Your task to perform on an android device: stop showing notifications on the lock screen Image 0: 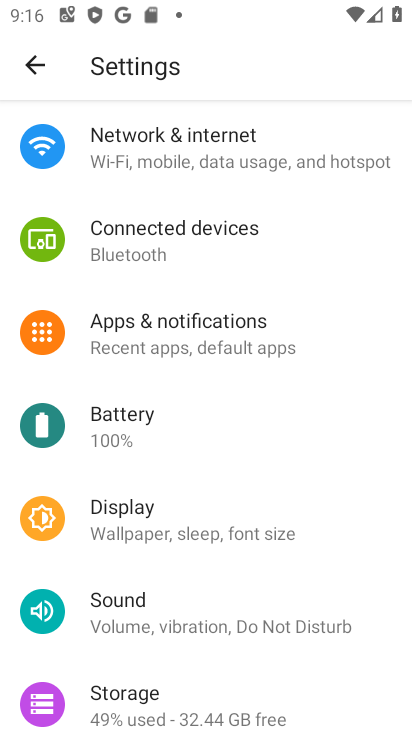
Step 0: press home button
Your task to perform on an android device: stop showing notifications on the lock screen Image 1: 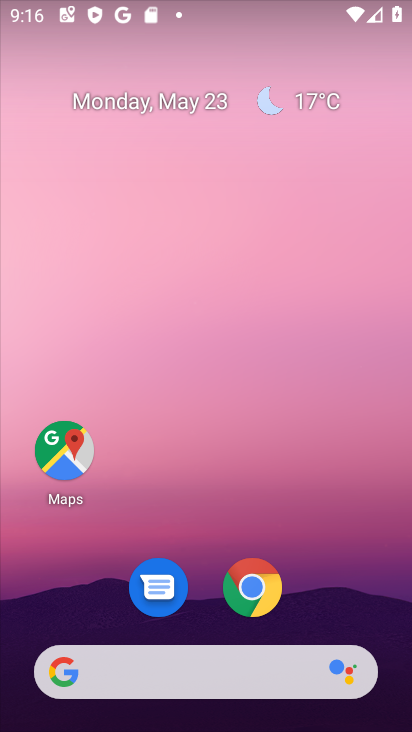
Step 1: drag from (175, 526) to (259, 14)
Your task to perform on an android device: stop showing notifications on the lock screen Image 2: 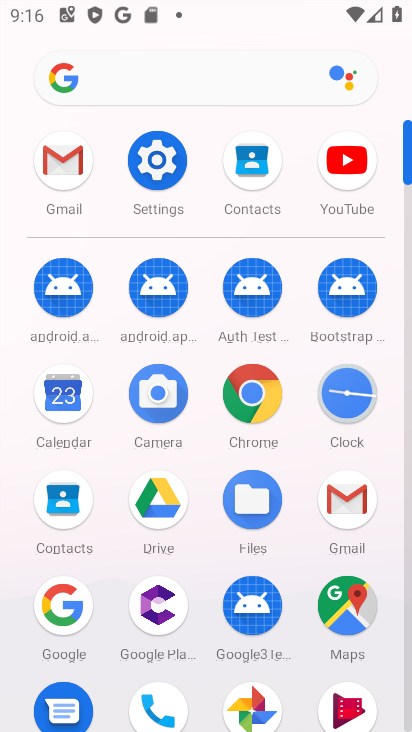
Step 2: click (166, 160)
Your task to perform on an android device: stop showing notifications on the lock screen Image 3: 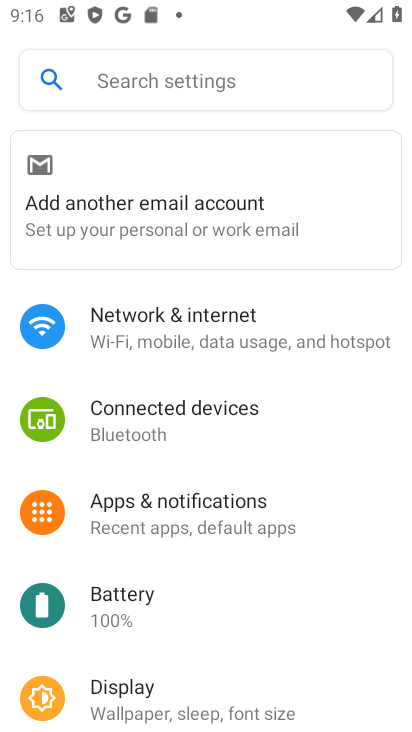
Step 3: click (226, 513)
Your task to perform on an android device: stop showing notifications on the lock screen Image 4: 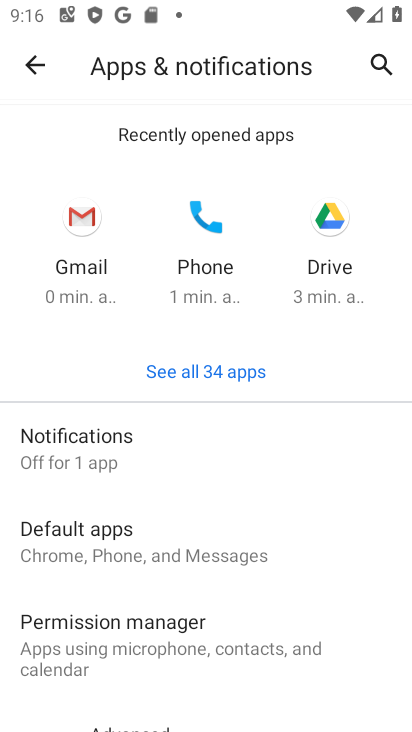
Step 4: drag from (142, 676) to (272, 200)
Your task to perform on an android device: stop showing notifications on the lock screen Image 5: 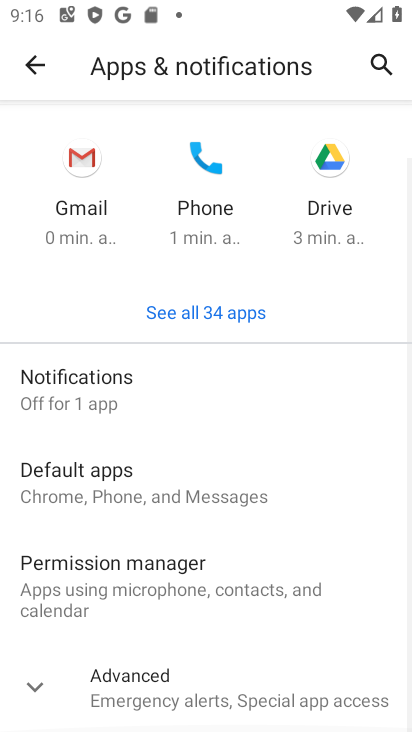
Step 5: click (141, 689)
Your task to perform on an android device: stop showing notifications on the lock screen Image 6: 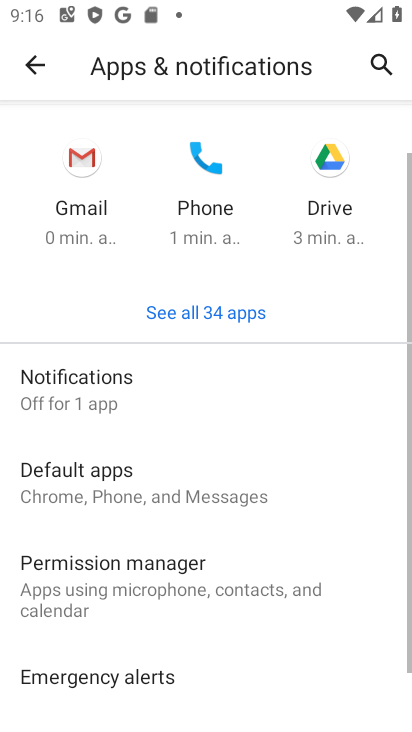
Step 6: drag from (182, 587) to (259, 133)
Your task to perform on an android device: stop showing notifications on the lock screen Image 7: 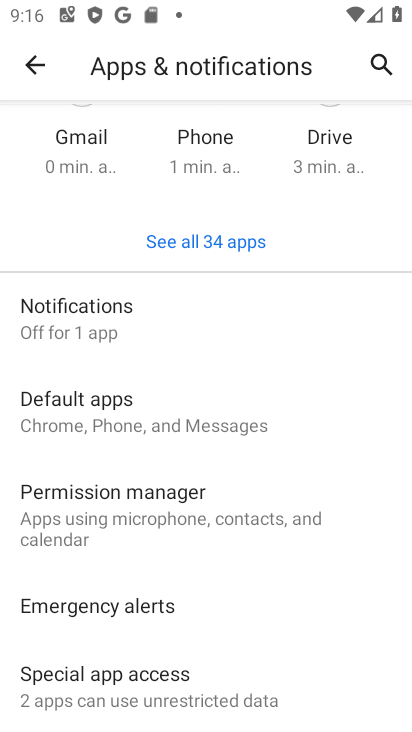
Step 7: click (98, 302)
Your task to perform on an android device: stop showing notifications on the lock screen Image 8: 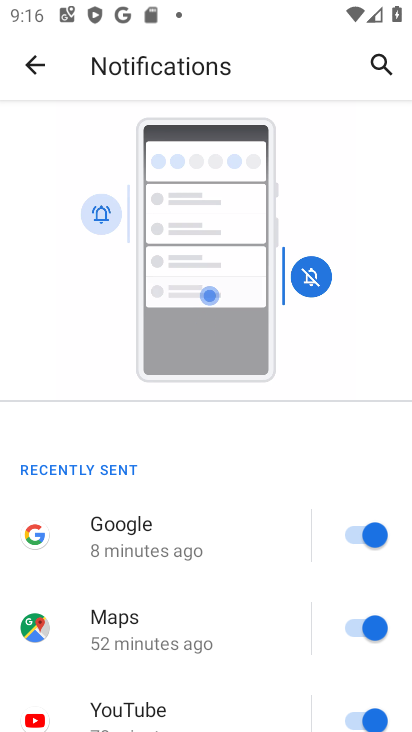
Step 8: drag from (166, 668) to (258, 137)
Your task to perform on an android device: stop showing notifications on the lock screen Image 9: 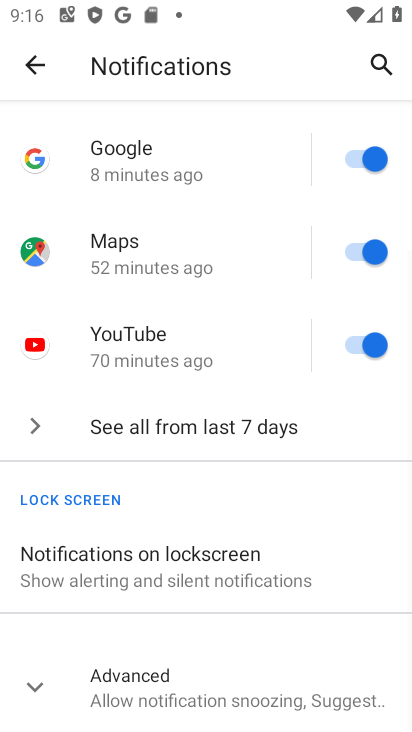
Step 9: click (146, 545)
Your task to perform on an android device: stop showing notifications on the lock screen Image 10: 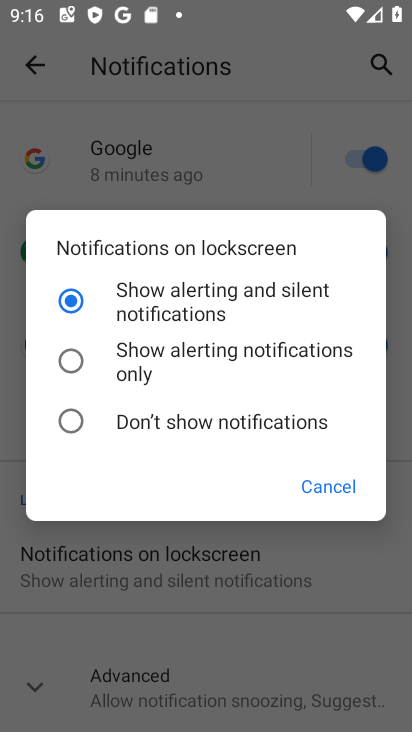
Step 10: click (60, 424)
Your task to perform on an android device: stop showing notifications on the lock screen Image 11: 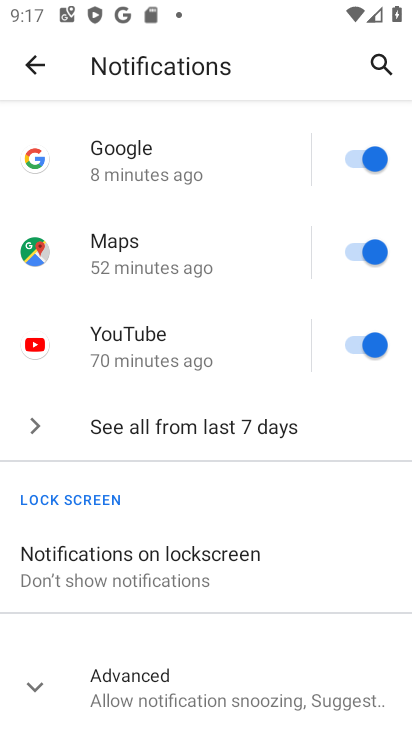
Step 11: task complete